Your task to perform on an android device: Show me popular games on the Play Store Image 0: 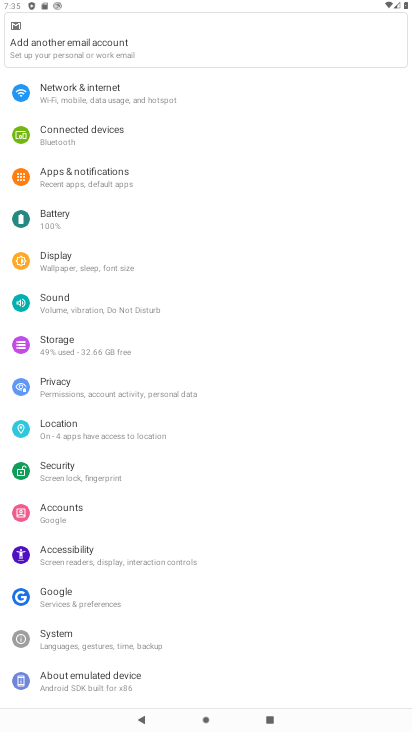
Step 0: press home button
Your task to perform on an android device: Show me popular games on the Play Store Image 1: 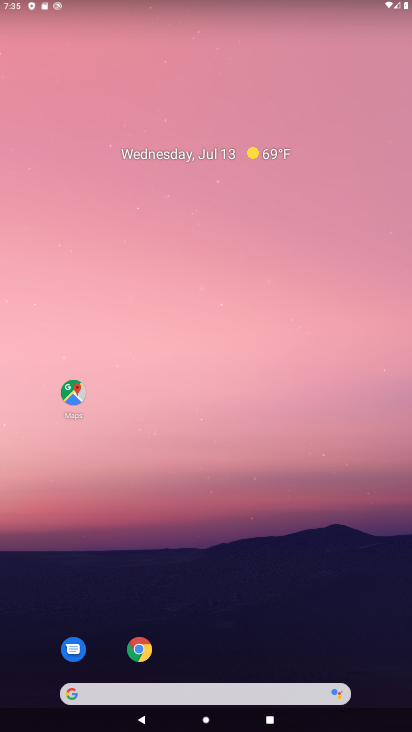
Step 1: drag from (245, 437) to (245, 290)
Your task to perform on an android device: Show me popular games on the Play Store Image 2: 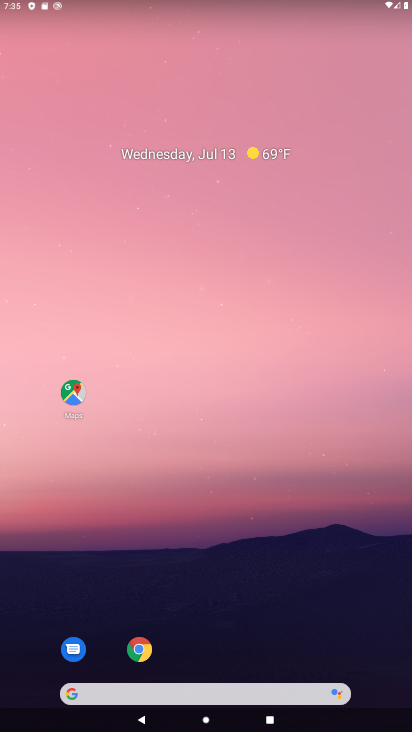
Step 2: drag from (170, 647) to (223, 179)
Your task to perform on an android device: Show me popular games on the Play Store Image 3: 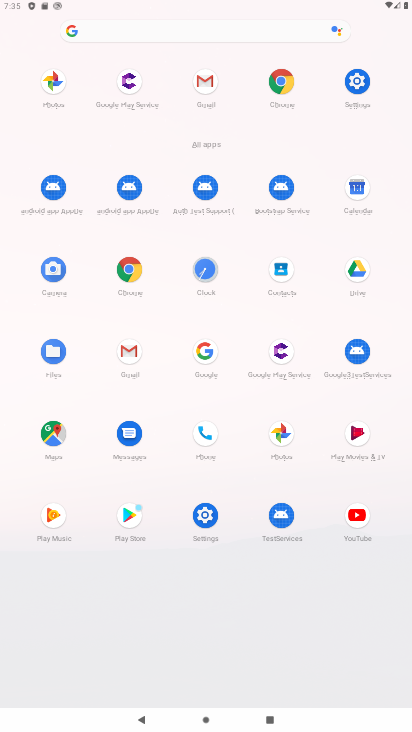
Step 3: click (134, 522)
Your task to perform on an android device: Show me popular games on the Play Store Image 4: 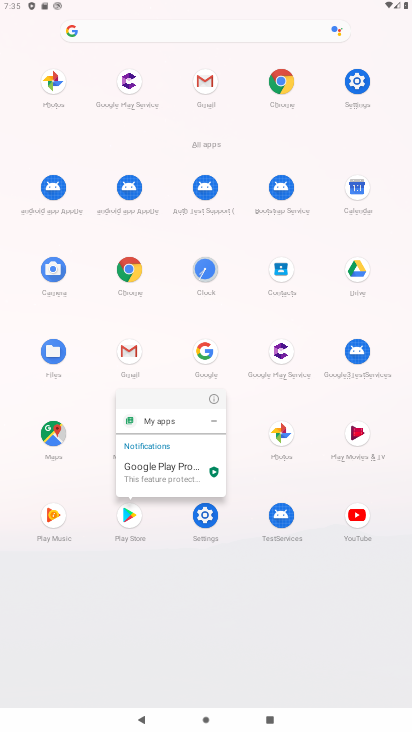
Step 4: click (131, 514)
Your task to perform on an android device: Show me popular games on the Play Store Image 5: 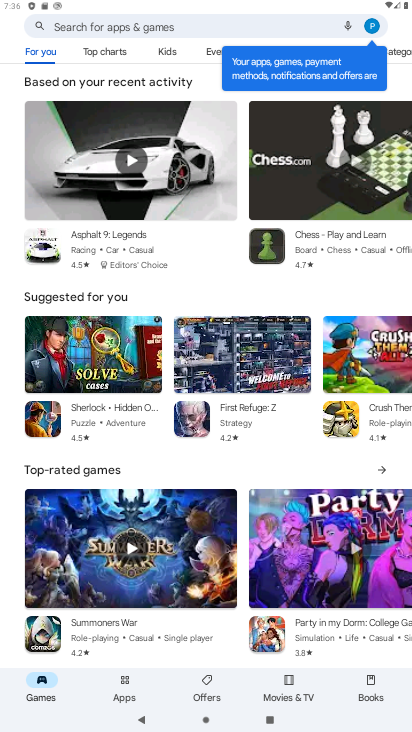
Step 5: click (154, 26)
Your task to perform on an android device: Show me popular games on the Play Store Image 6: 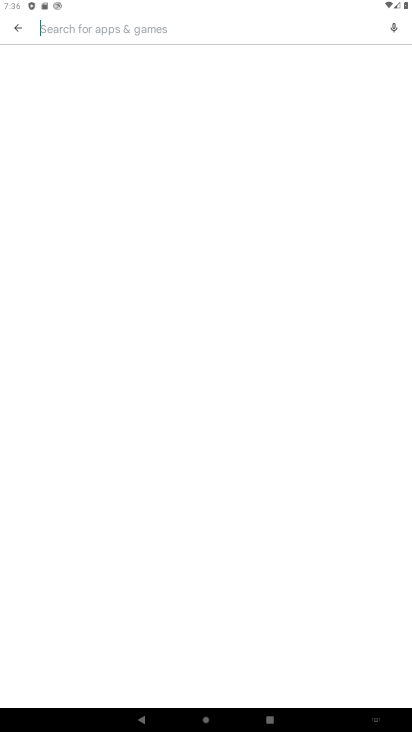
Step 6: type "popular games"
Your task to perform on an android device: Show me popular games on the Play Store Image 7: 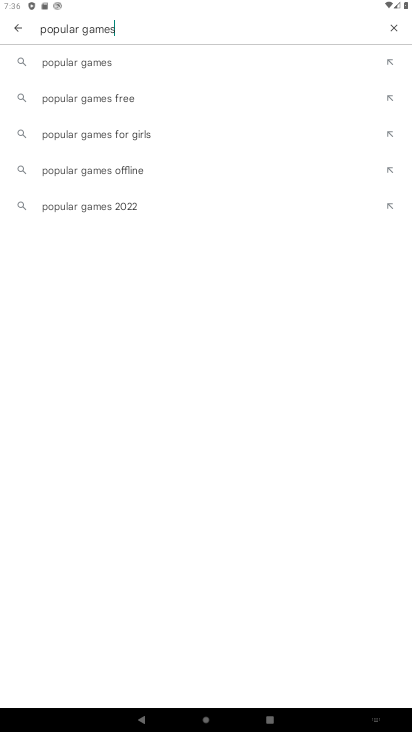
Step 7: click (49, 70)
Your task to perform on an android device: Show me popular games on the Play Store Image 8: 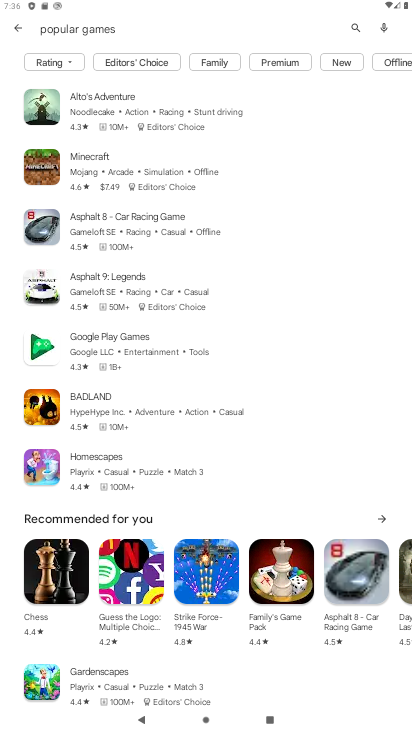
Step 8: task complete